Your task to perform on an android device: turn off data saver in the chrome app Image 0: 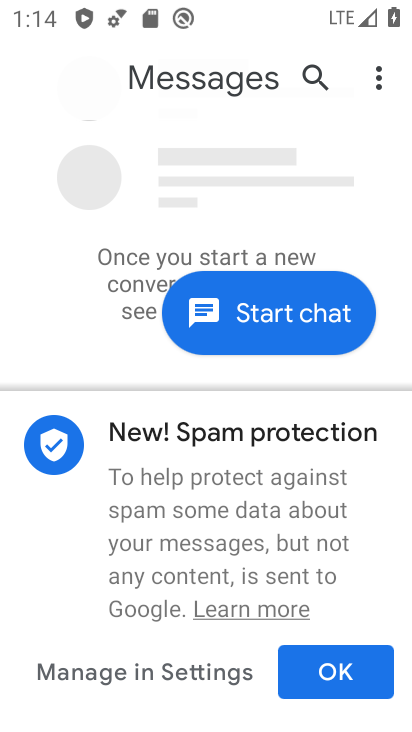
Step 0: press home button
Your task to perform on an android device: turn off data saver in the chrome app Image 1: 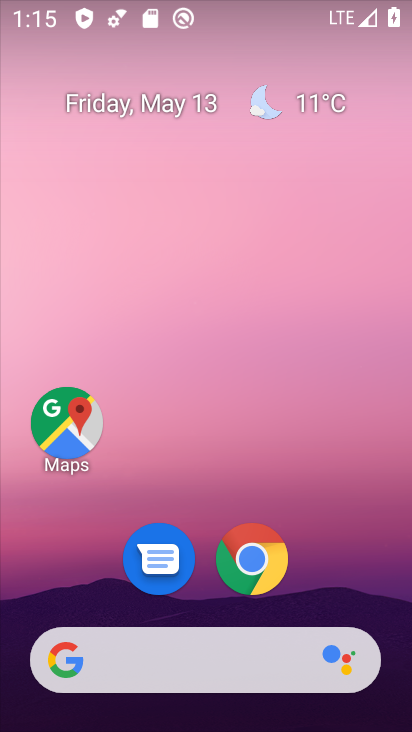
Step 1: click (250, 560)
Your task to perform on an android device: turn off data saver in the chrome app Image 2: 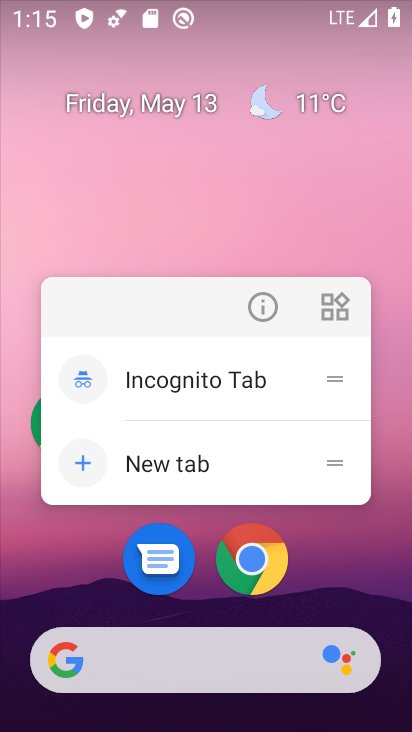
Step 2: press home button
Your task to perform on an android device: turn off data saver in the chrome app Image 3: 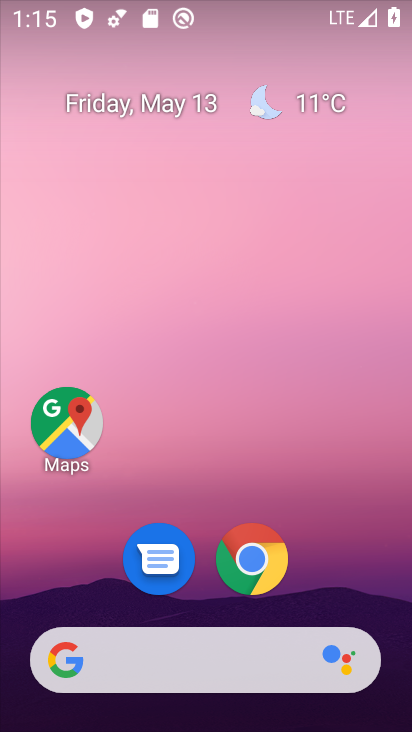
Step 3: click (254, 560)
Your task to perform on an android device: turn off data saver in the chrome app Image 4: 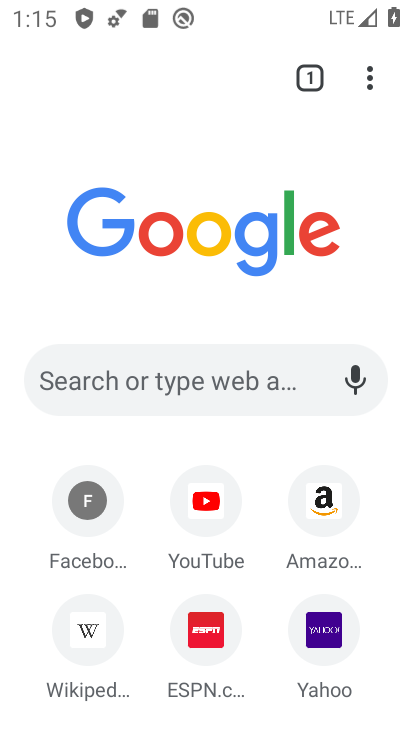
Step 4: click (373, 69)
Your task to perform on an android device: turn off data saver in the chrome app Image 5: 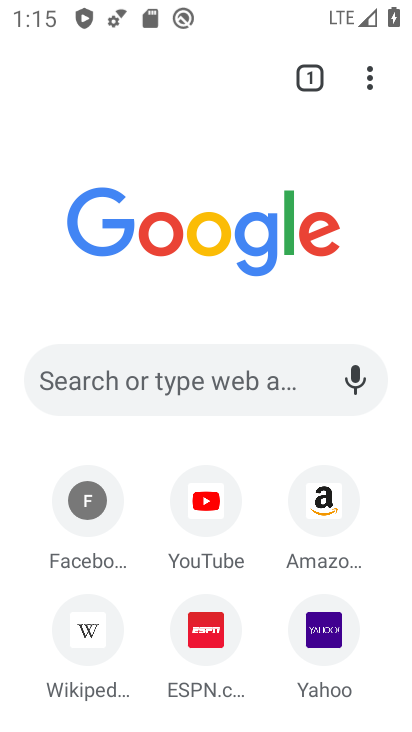
Step 5: click (369, 80)
Your task to perform on an android device: turn off data saver in the chrome app Image 6: 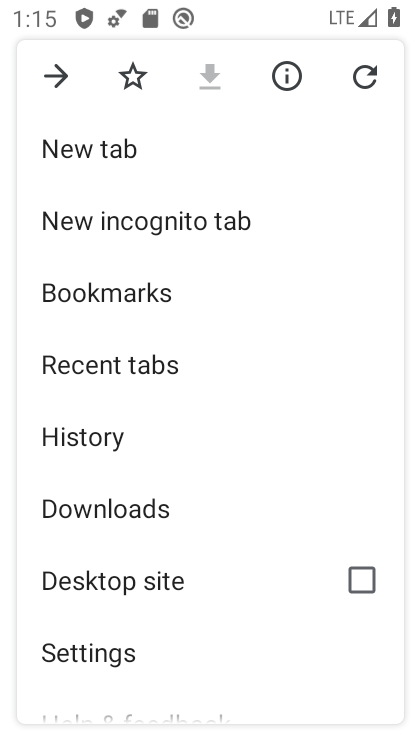
Step 6: drag from (259, 632) to (255, 367)
Your task to perform on an android device: turn off data saver in the chrome app Image 7: 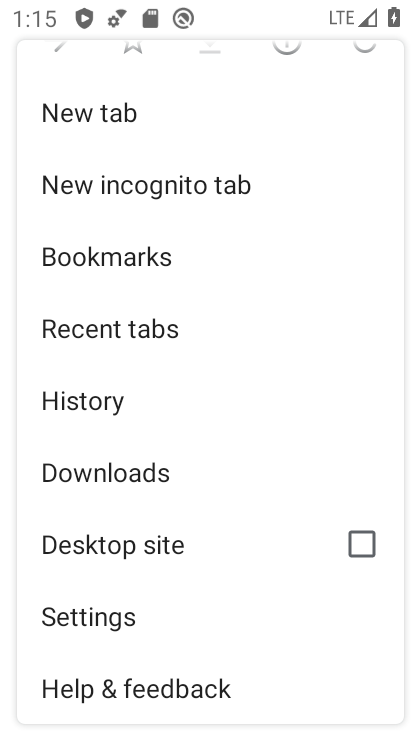
Step 7: drag from (249, 683) to (241, 423)
Your task to perform on an android device: turn off data saver in the chrome app Image 8: 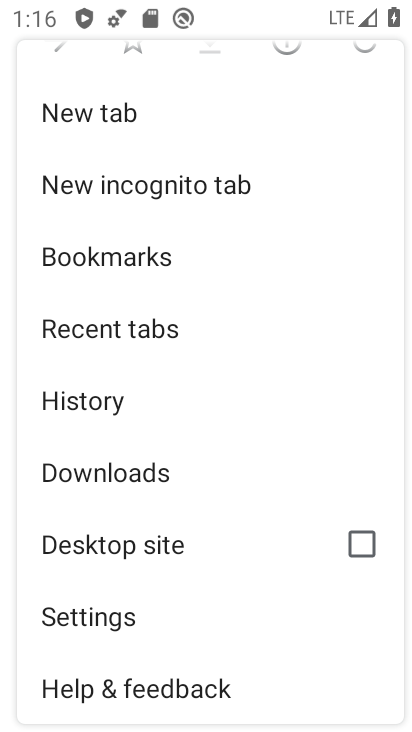
Step 8: click (121, 619)
Your task to perform on an android device: turn off data saver in the chrome app Image 9: 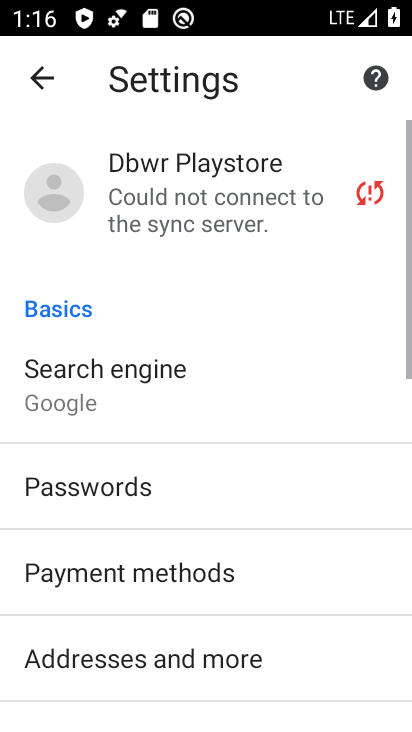
Step 9: drag from (227, 680) to (229, 366)
Your task to perform on an android device: turn off data saver in the chrome app Image 10: 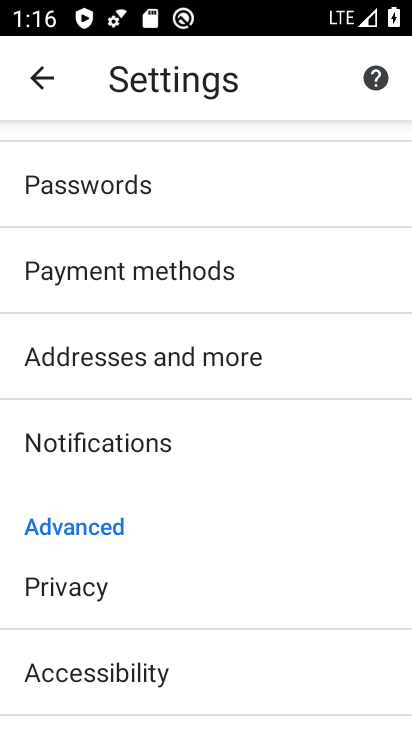
Step 10: drag from (228, 681) to (254, 450)
Your task to perform on an android device: turn off data saver in the chrome app Image 11: 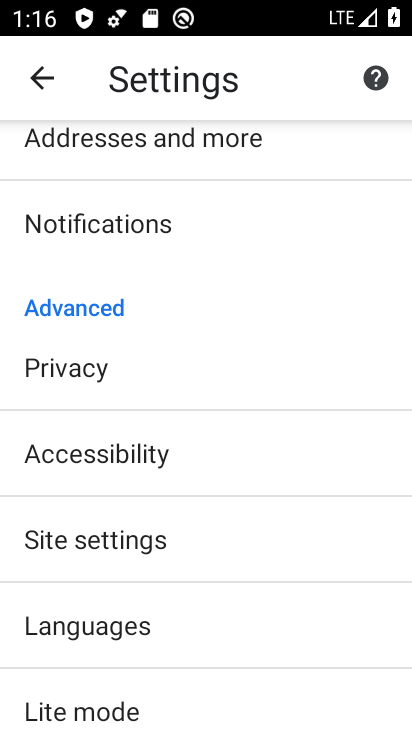
Step 11: drag from (271, 675) to (279, 470)
Your task to perform on an android device: turn off data saver in the chrome app Image 12: 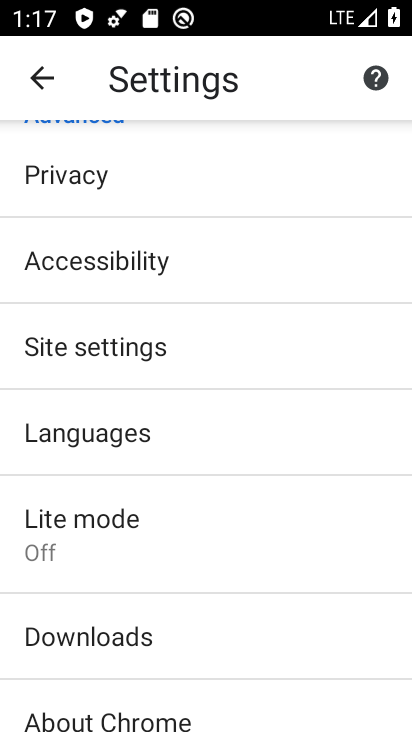
Step 12: click (93, 517)
Your task to perform on an android device: turn off data saver in the chrome app Image 13: 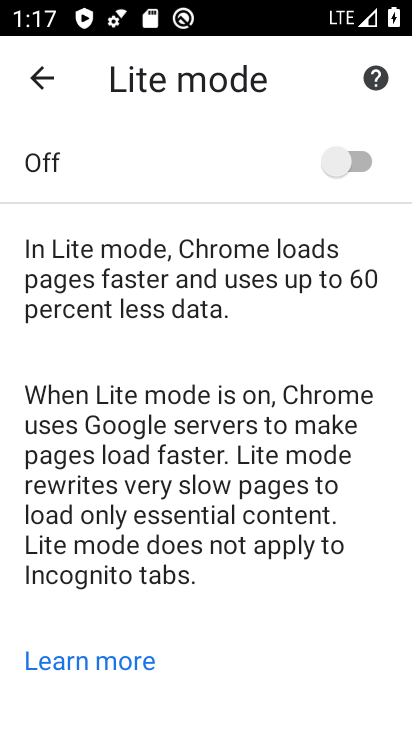
Step 13: task complete